Your task to perform on an android device: toggle notification dots Image 0: 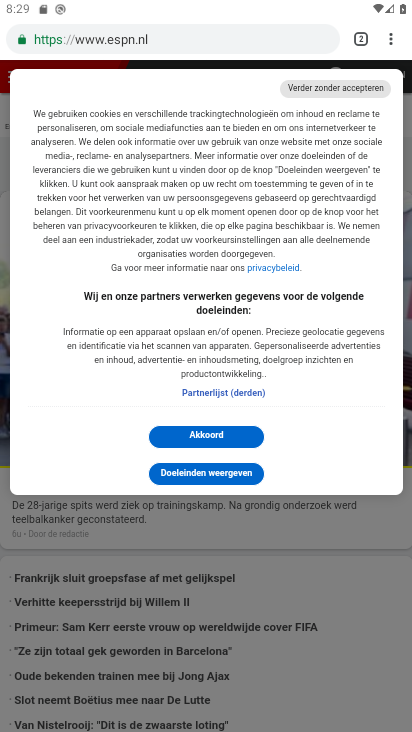
Step 0: click (390, 45)
Your task to perform on an android device: toggle notification dots Image 1: 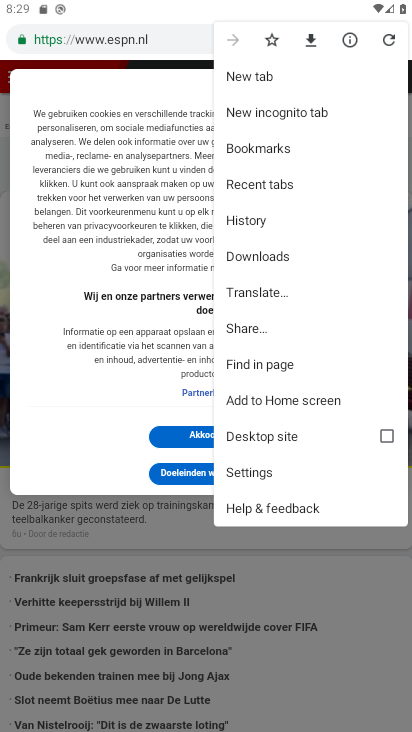
Step 1: press home button
Your task to perform on an android device: toggle notification dots Image 2: 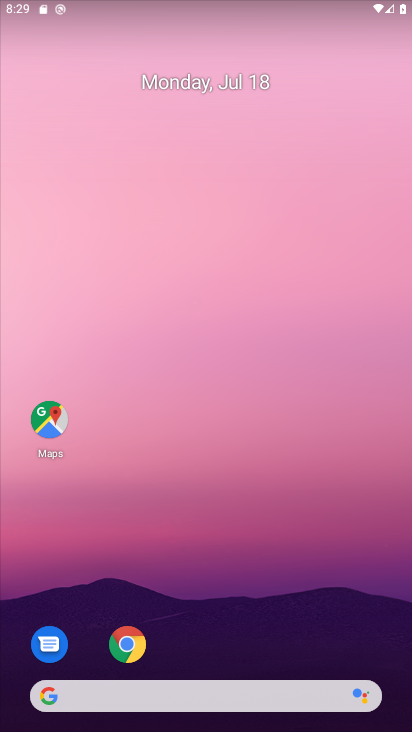
Step 2: drag from (239, 652) to (256, 92)
Your task to perform on an android device: toggle notification dots Image 3: 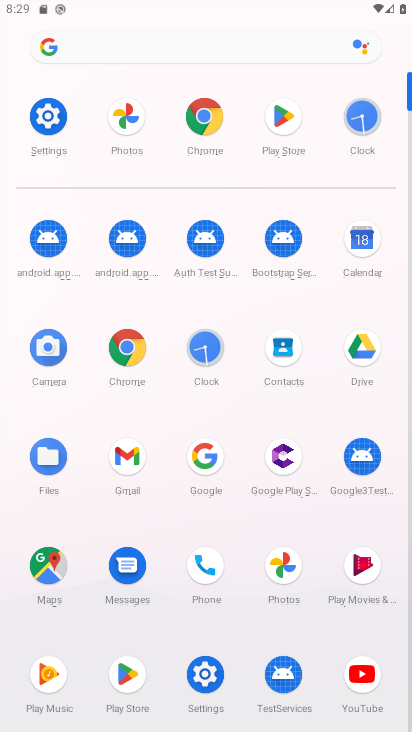
Step 3: click (34, 143)
Your task to perform on an android device: toggle notification dots Image 4: 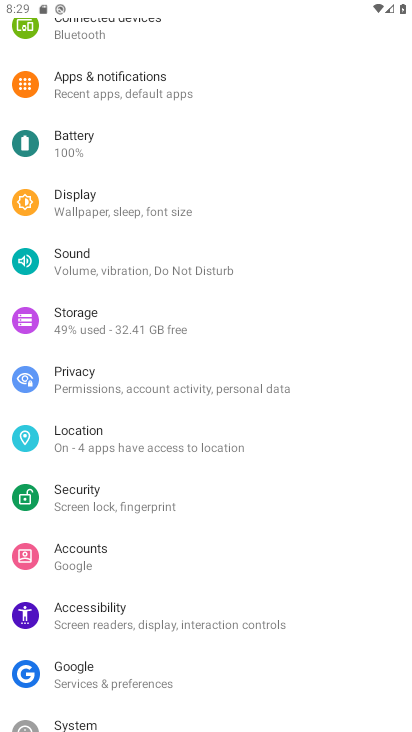
Step 4: click (162, 83)
Your task to perform on an android device: toggle notification dots Image 5: 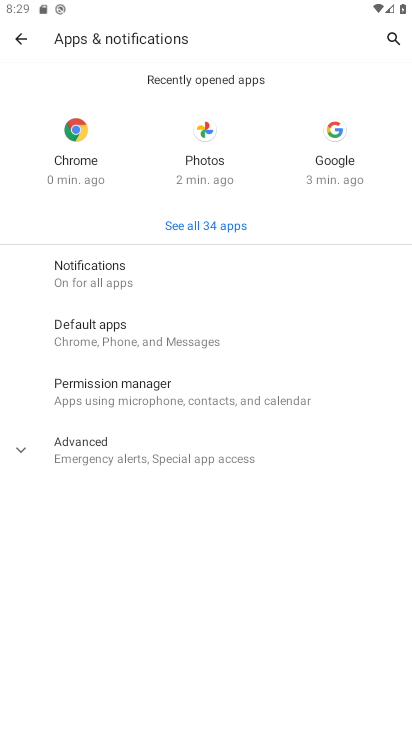
Step 5: click (174, 265)
Your task to perform on an android device: toggle notification dots Image 6: 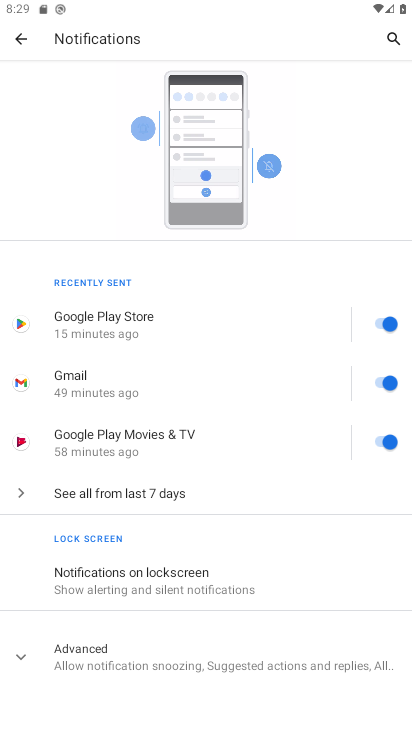
Step 6: click (182, 645)
Your task to perform on an android device: toggle notification dots Image 7: 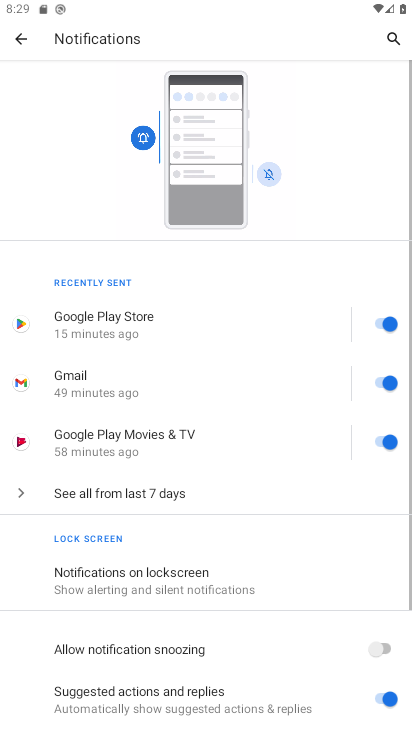
Step 7: drag from (205, 598) to (193, 212)
Your task to perform on an android device: toggle notification dots Image 8: 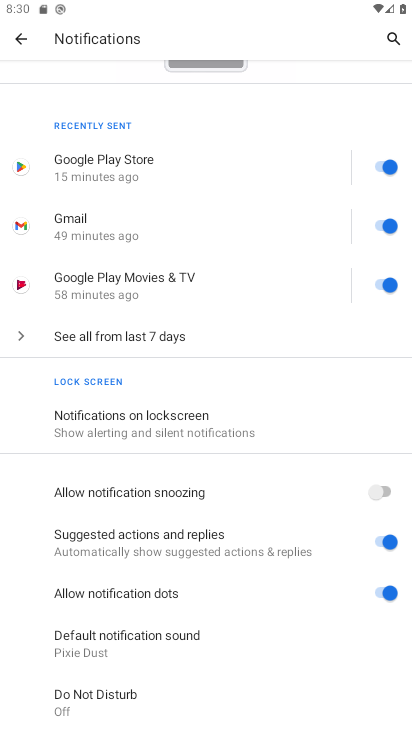
Step 8: click (376, 609)
Your task to perform on an android device: toggle notification dots Image 9: 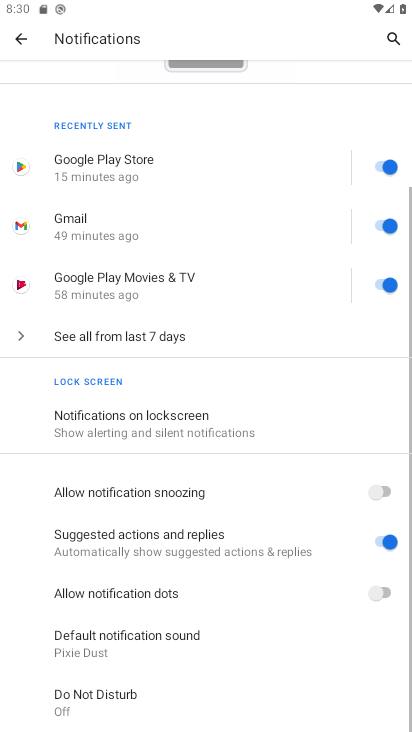
Step 9: task complete